Your task to perform on an android device: Find coffee shops on Maps Image 0: 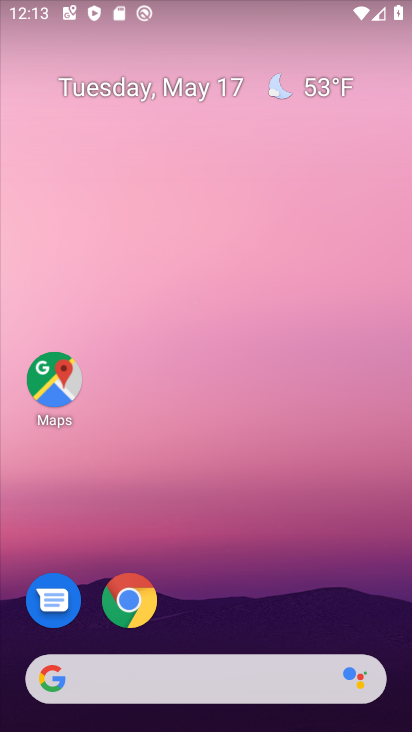
Step 0: click (64, 395)
Your task to perform on an android device: Find coffee shops on Maps Image 1: 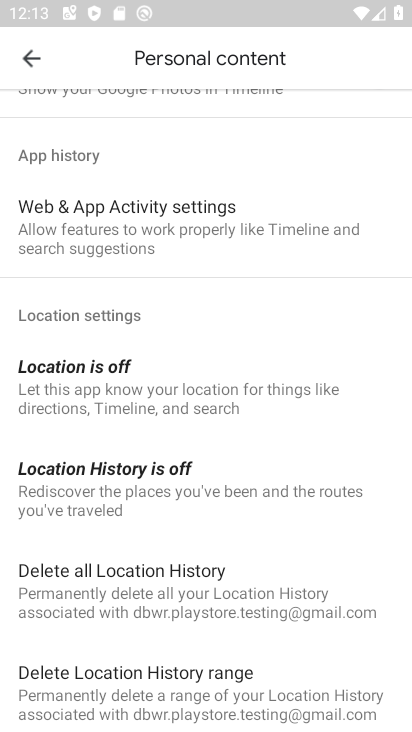
Step 1: click (34, 47)
Your task to perform on an android device: Find coffee shops on Maps Image 2: 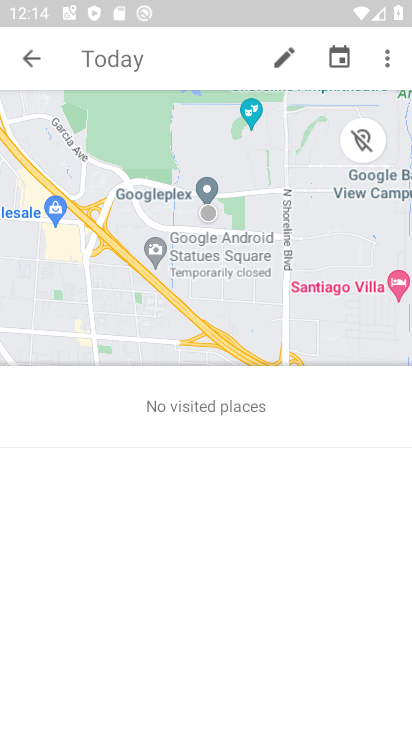
Step 2: click (32, 61)
Your task to perform on an android device: Find coffee shops on Maps Image 3: 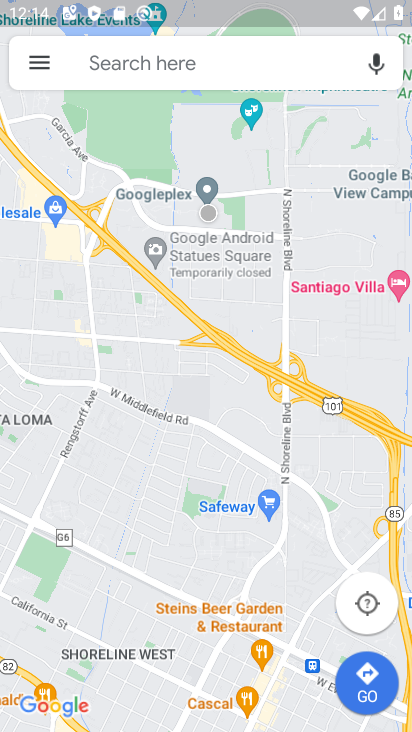
Step 3: click (142, 65)
Your task to perform on an android device: Find coffee shops on Maps Image 4: 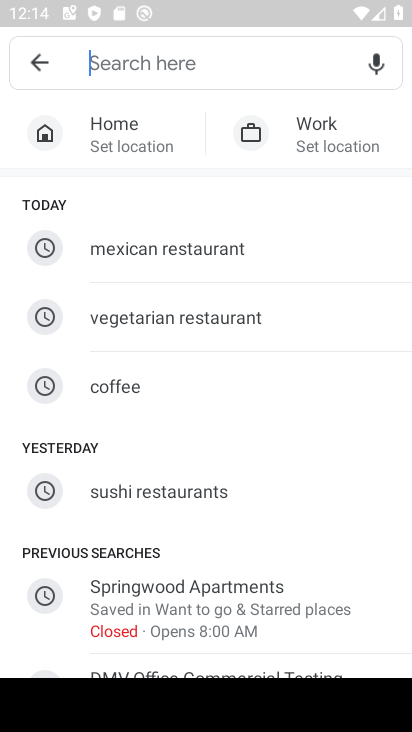
Step 4: click (169, 383)
Your task to perform on an android device: Find coffee shops on Maps Image 5: 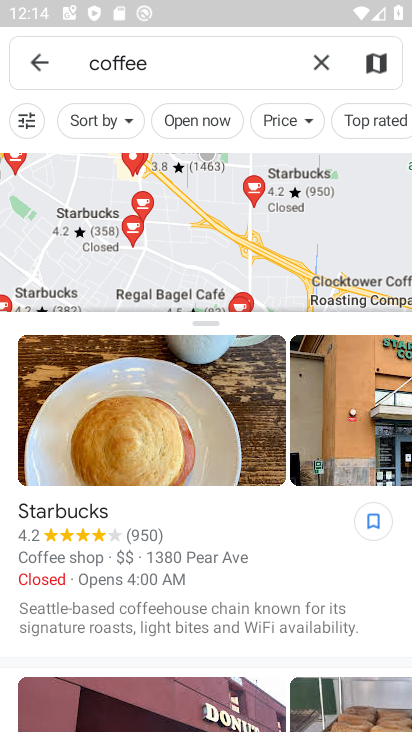
Step 5: task complete